Your task to perform on an android device: allow cookies in the chrome app Image 0: 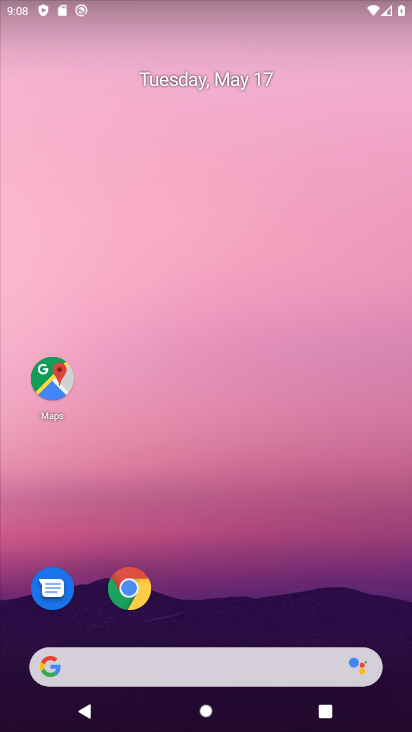
Step 0: click (131, 589)
Your task to perform on an android device: allow cookies in the chrome app Image 1: 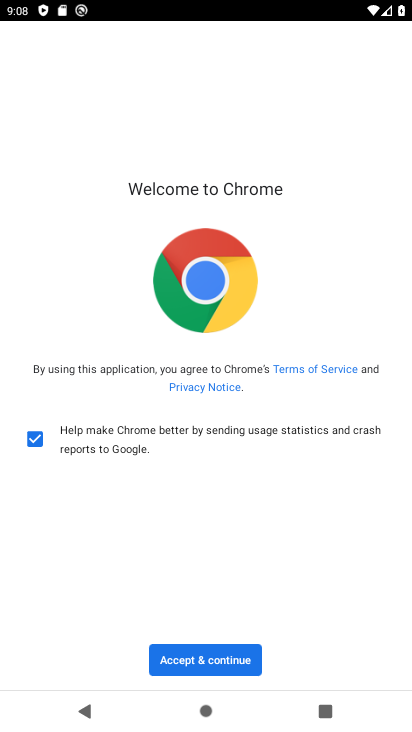
Step 1: click (213, 669)
Your task to perform on an android device: allow cookies in the chrome app Image 2: 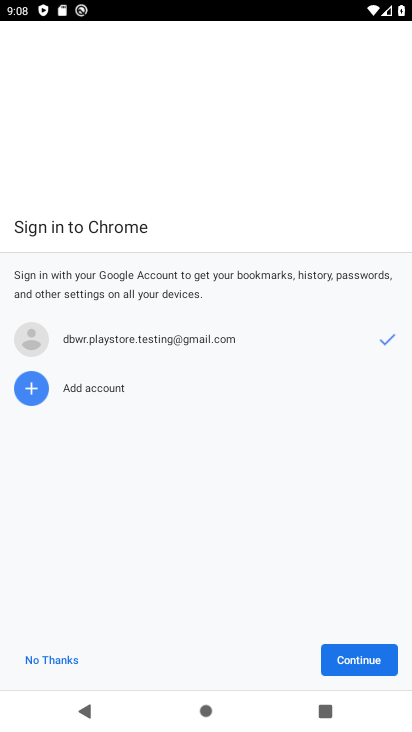
Step 2: click (375, 653)
Your task to perform on an android device: allow cookies in the chrome app Image 3: 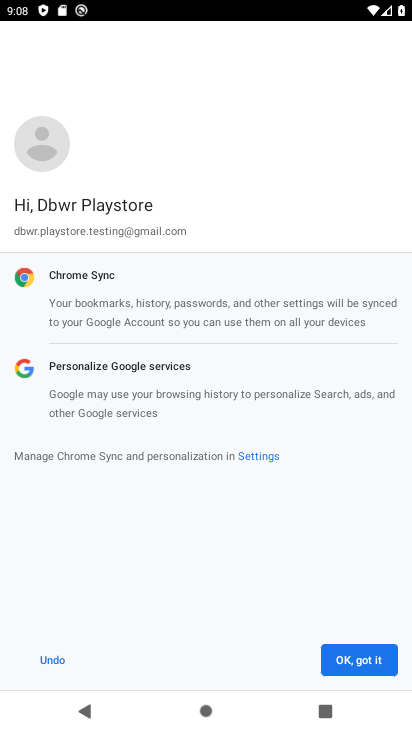
Step 3: click (375, 653)
Your task to perform on an android device: allow cookies in the chrome app Image 4: 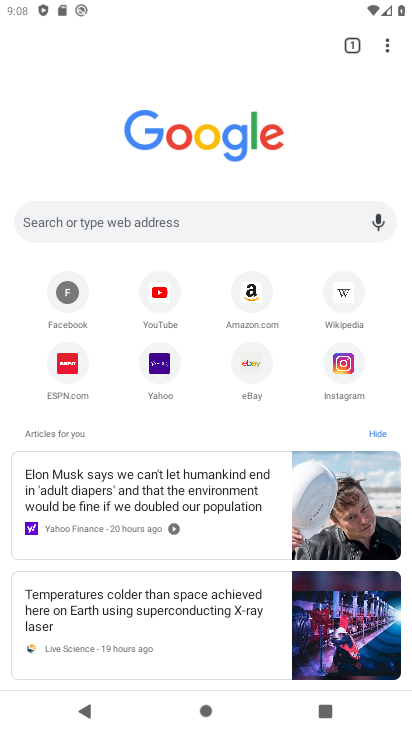
Step 4: click (385, 49)
Your task to perform on an android device: allow cookies in the chrome app Image 5: 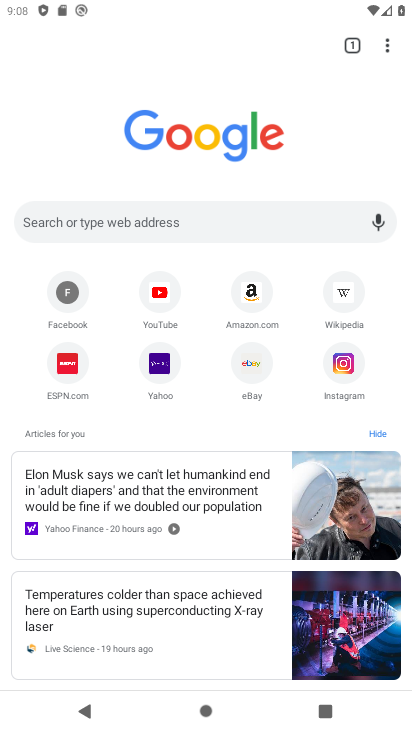
Step 5: drag from (382, 51) to (214, 379)
Your task to perform on an android device: allow cookies in the chrome app Image 6: 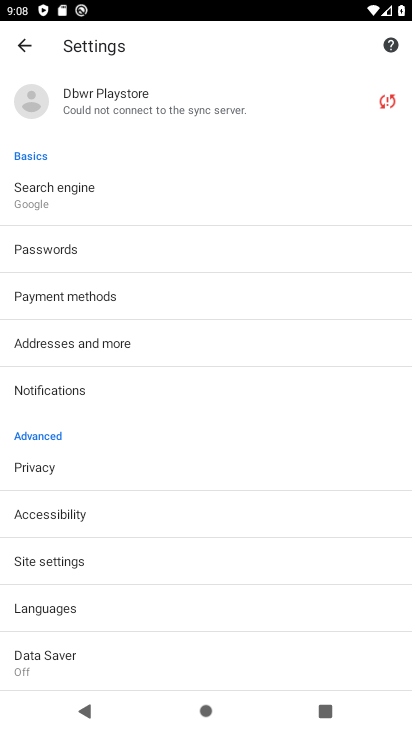
Step 6: click (60, 567)
Your task to perform on an android device: allow cookies in the chrome app Image 7: 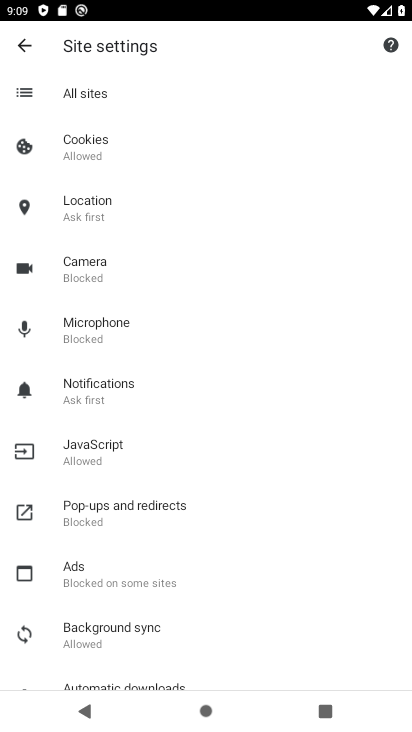
Step 7: click (86, 152)
Your task to perform on an android device: allow cookies in the chrome app Image 8: 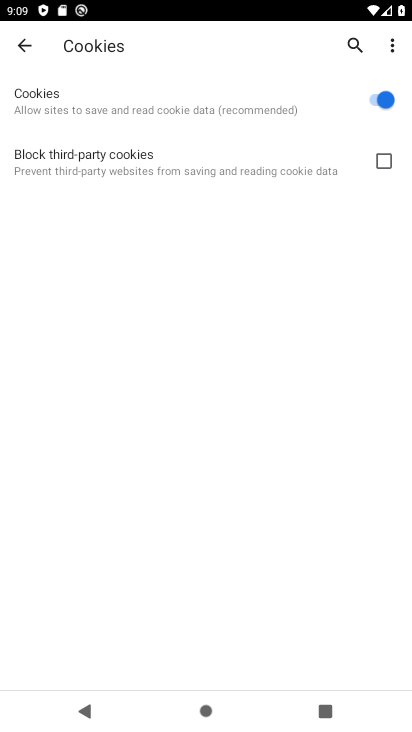
Step 8: task complete